Your task to perform on an android device: check out phone information Image 0: 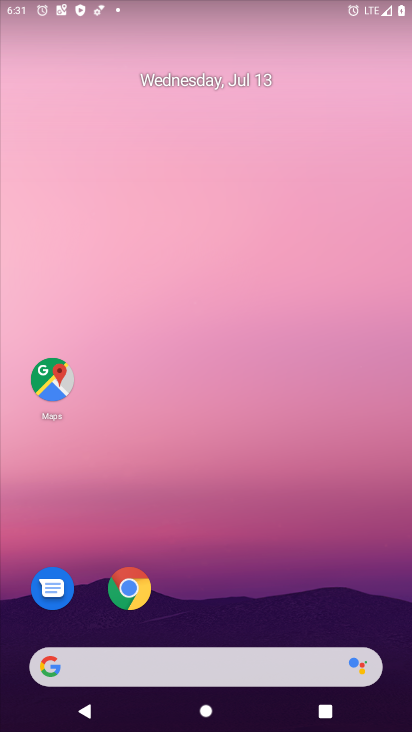
Step 0: drag from (181, 544) to (181, 1)
Your task to perform on an android device: check out phone information Image 1: 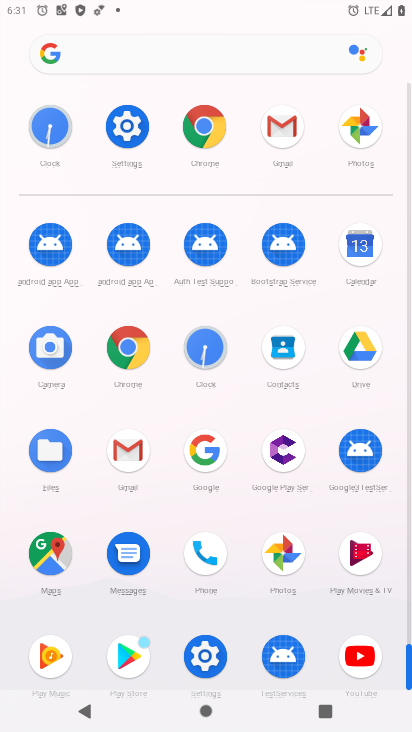
Step 1: click (125, 200)
Your task to perform on an android device: check out phone information Image 2: 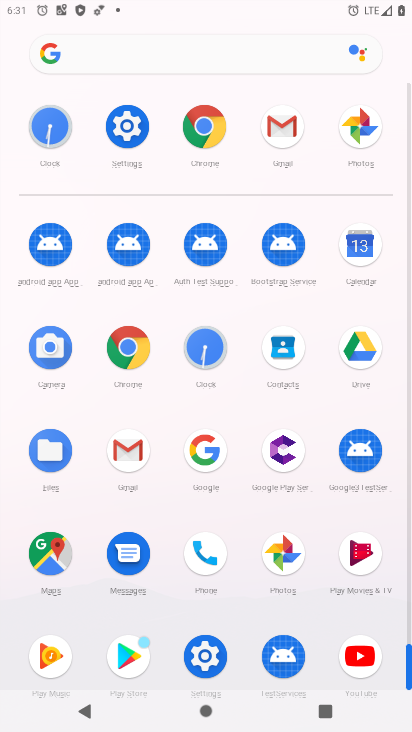
Step 2: click (125, 158)
Your task to perform on an android device: check out phone information Image 3: 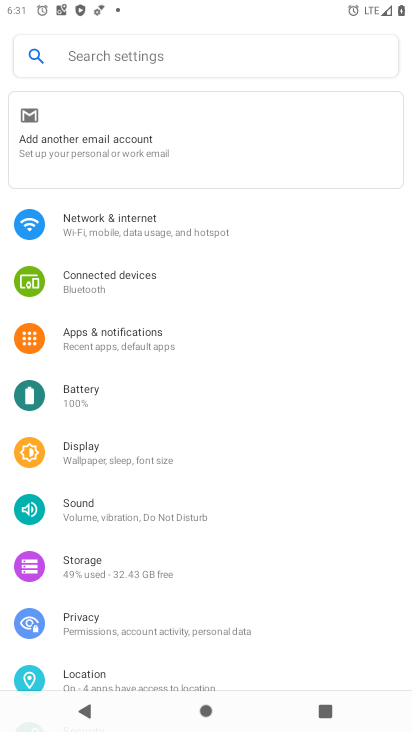
Step 3: drag from (121, 629) to (139, 166)
Your task to perform on an android device: check out phone information Image 4: 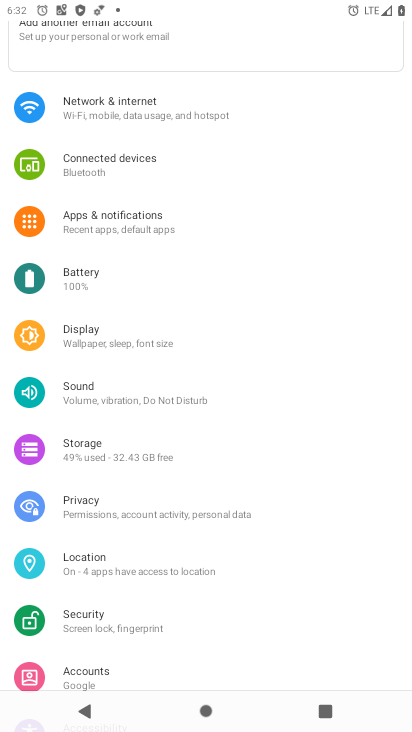
Step 4: drag from (139, 599) to (128, 182)
Your task to perform on an android device: check out phone information Image 5: 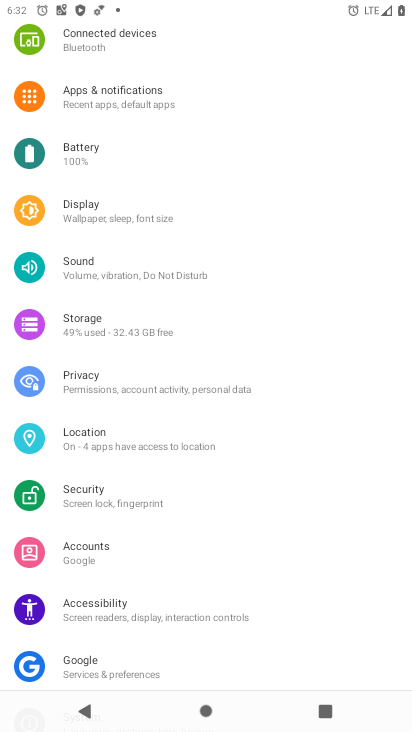
Step 5: drag from (135, 626) to (131, 440)
Your task to perform on an android device: check out phone information Image 6: 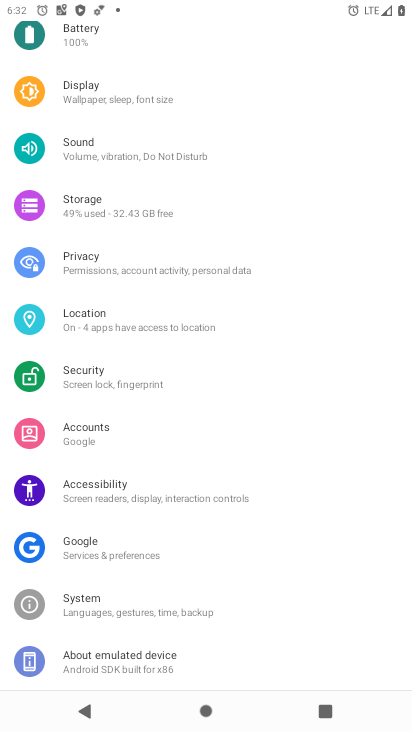
Step 6: click (109, 666)
Your task to perform on an android device: check out phone information Image 7: 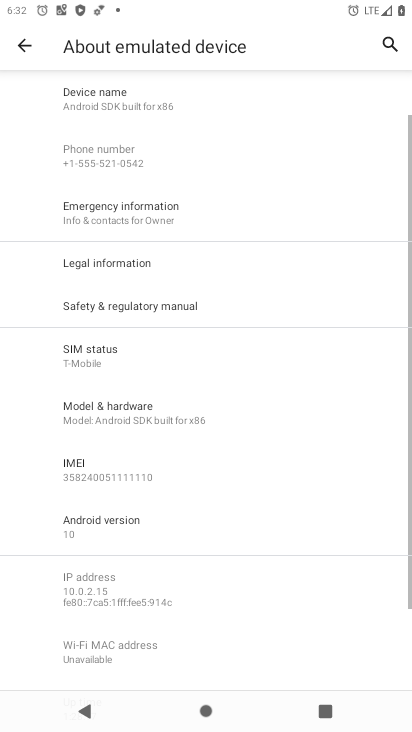
Step 7: task complete